Your task to perform on an android device: check android version Image 0: 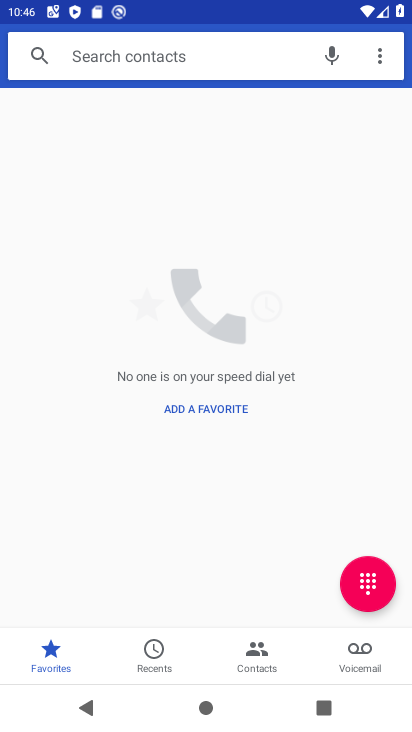
Step 0: press home button
Your task to perform on an android device: check android version Image 1: 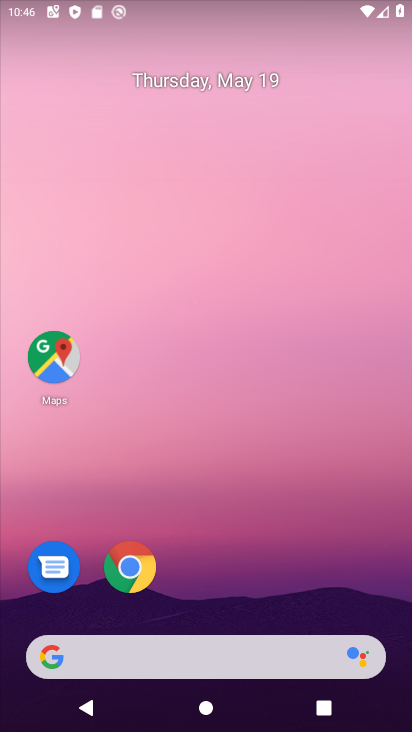
Step 1: drag from (394, 624) to (316, 162)
Your task to perform on an android device: check android version Image 2: 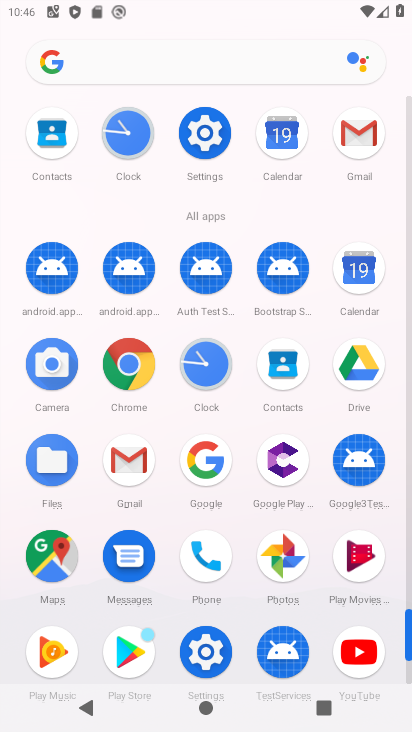
Step 2: click (205, 651)
Your task to perform on an android device: check android version Image 3: 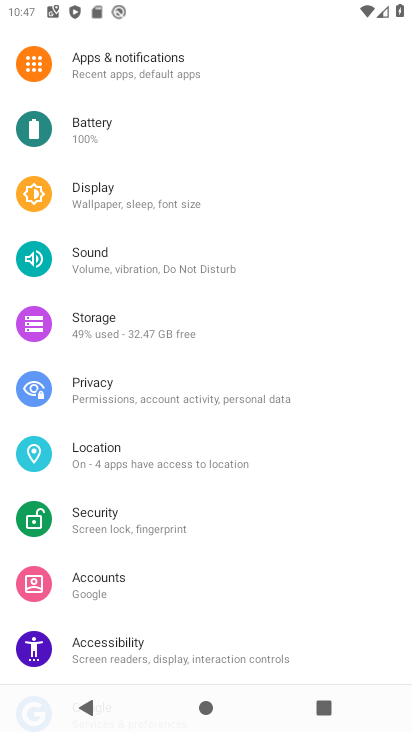
Step 3: drag from (170, 645) to (187, 168)
Your task to perform on an android device: check android version Image 4: 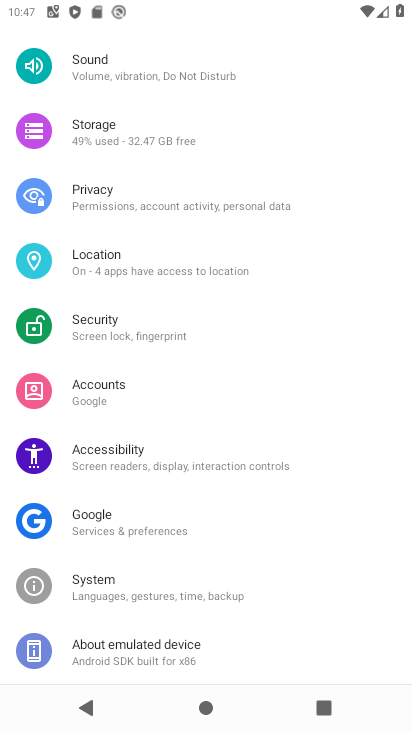
Step 4: click (180, 647)
Your task to perform on an android device: check android version Image 5: 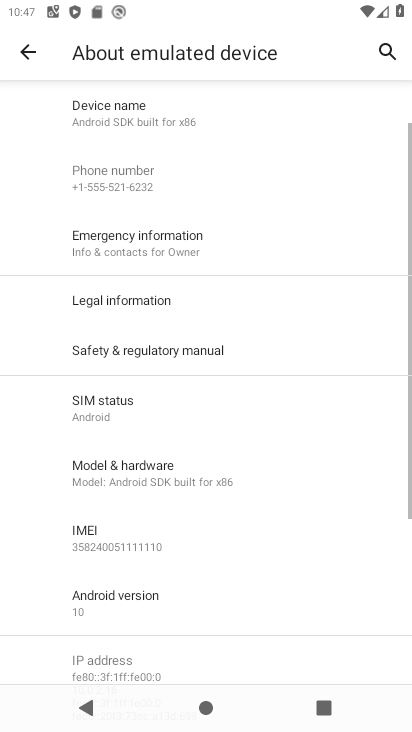
Step 5: click (127, 588)
Your task to perform on an android device: check android version Image 6: 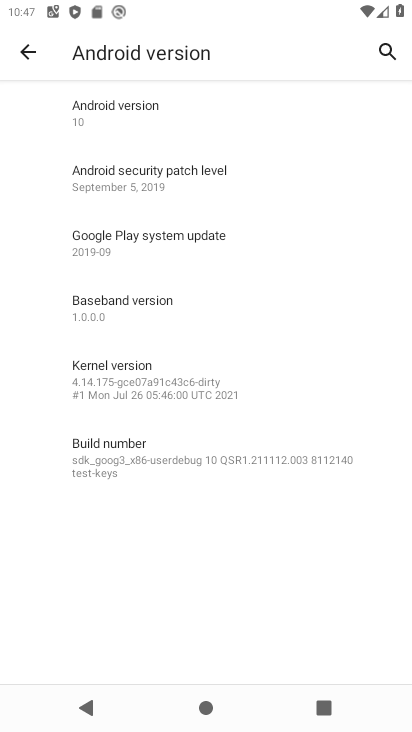
Step 6: task complete